Your task to perform on an android device: Open eBay Image 0: 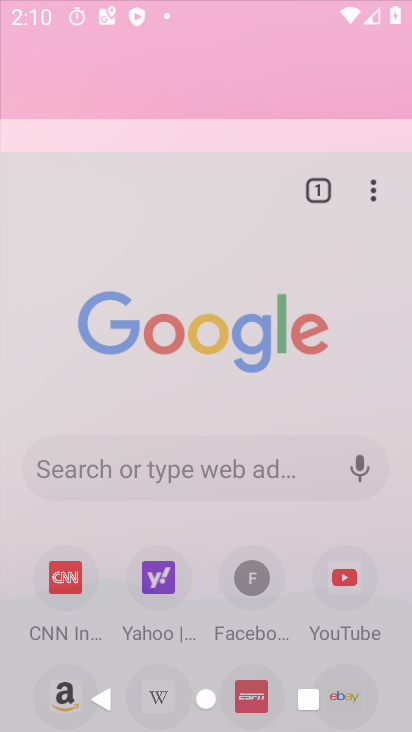
Step 0: drag from (397, 640) to (315, 64)
Your task to perform on an android device: Open eBay Image 1: 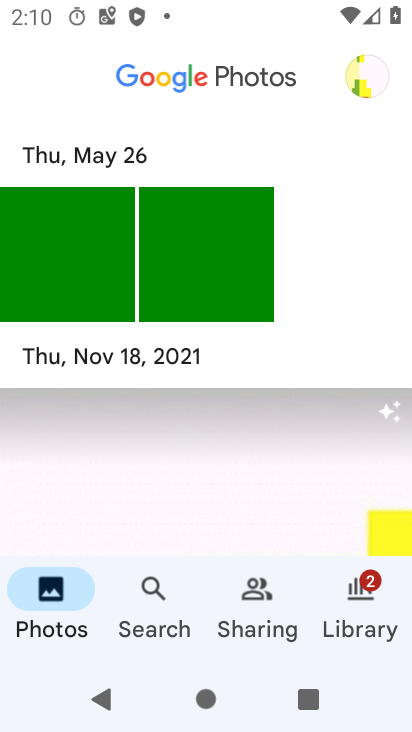
Step 1: press home button
Your task to perform on an android device: Open eBay Image 2: 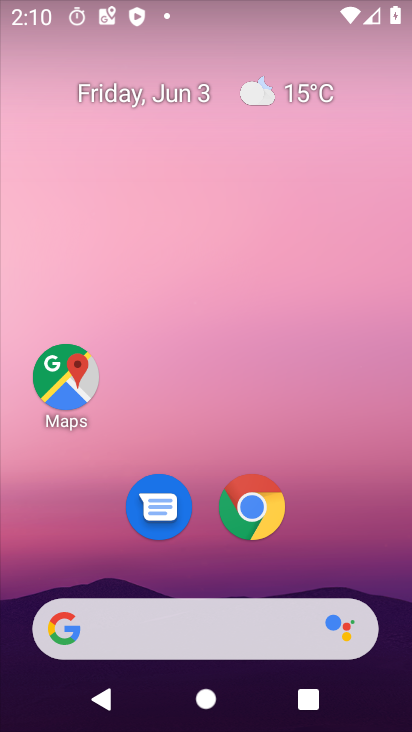
Step 2: drag from (399, 647) to (294, 26)
Your task to perform on an android device: Open eBay Image 3: 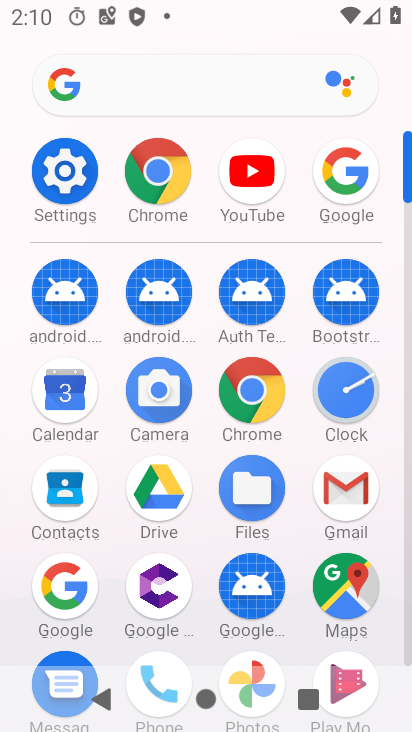
Step 3: click (63, 592)
Your task to perform on an android device: Open eBay Image 4: 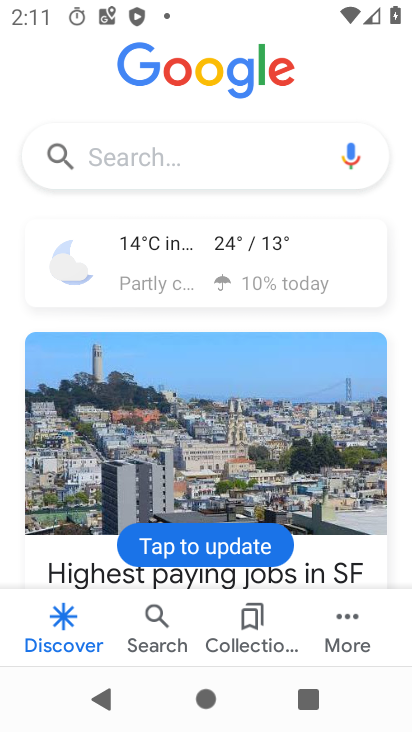
Step 4: click (170, 167)
Your task to perform on an android device: Open eBay Image 5: 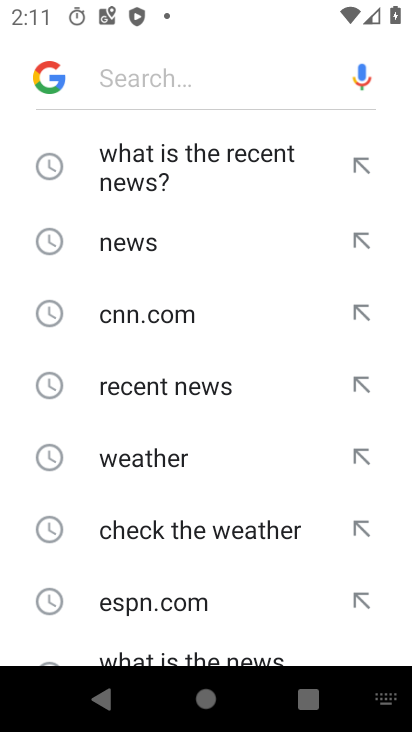
Step 5: drag from (210, 559) to (192, 148)
Your task to perform on an android device: Open eBay Image 6: 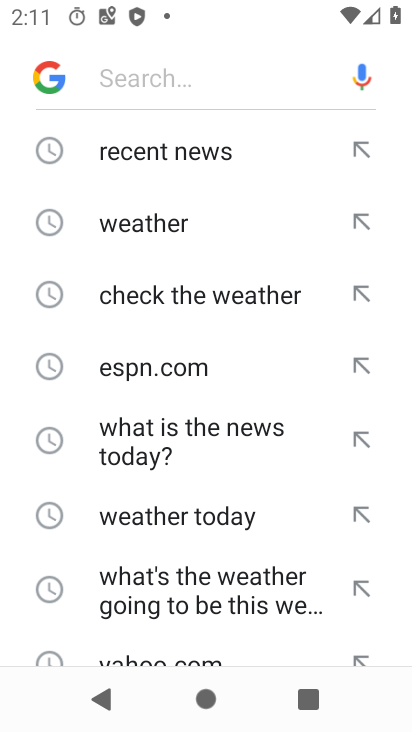
Step 6: drag from (193, 537) to (238, 111)
Your task to perform on an android device: Open eBay Image 7: 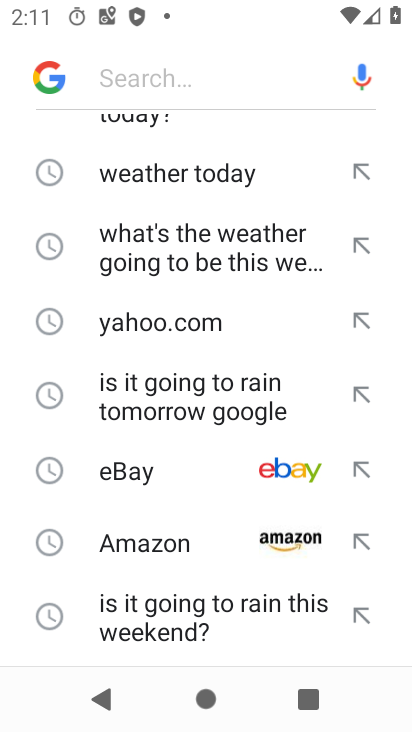
Step 7: click (254, 472)
Your task to perform on an android device: Open eBay Image 8: 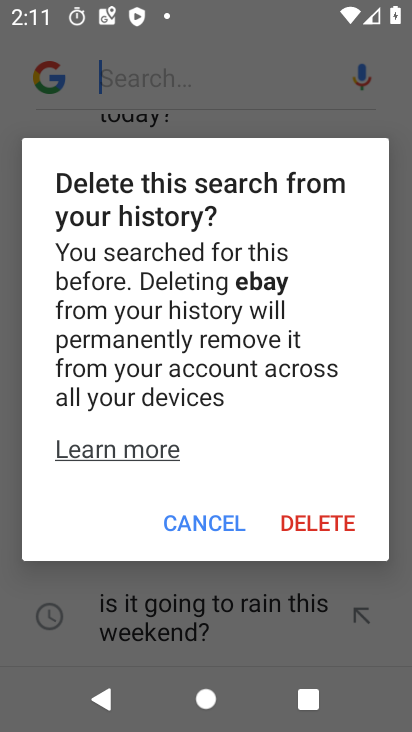
Step 8: click (210, 511)
Your task to perform on an android device: Open eBay Image 9: 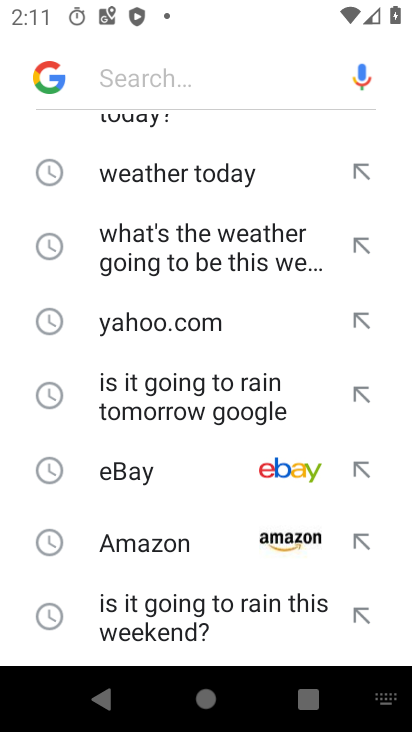
Step 9: click (192, 468)
Your task to perform on an android device: Open eBay Image 10: 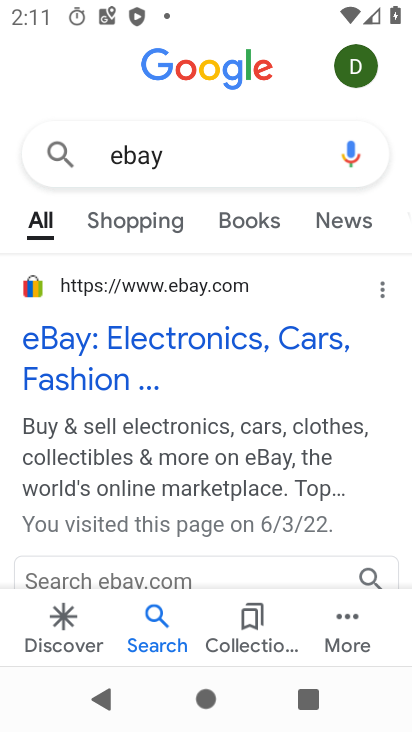
Step 10: task complete